Your task to perform on an android device: turn vacation reply on in the gmail app Image 0: 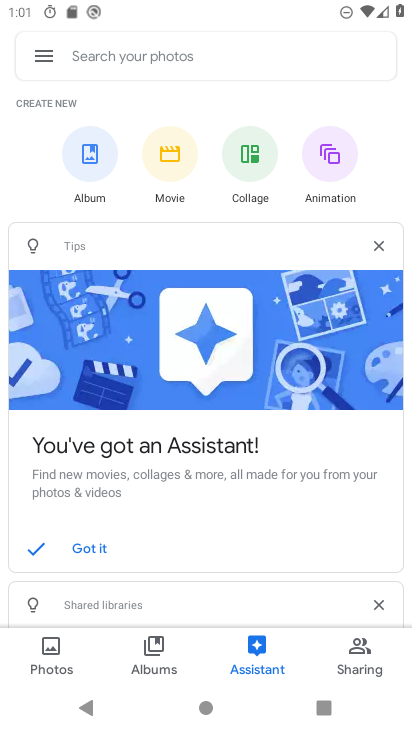
Step 0: press home button
Your task to perform on an android device: turn vacation reply on in the gmail app Image 1: 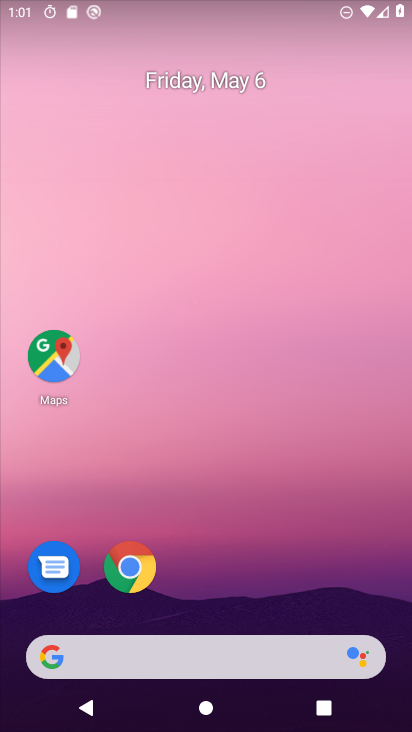
Step 1: drag from (262, 700) to (310, 288)
Your task to perform on an android device: turn vacation reply on in the gmail app Image 2: 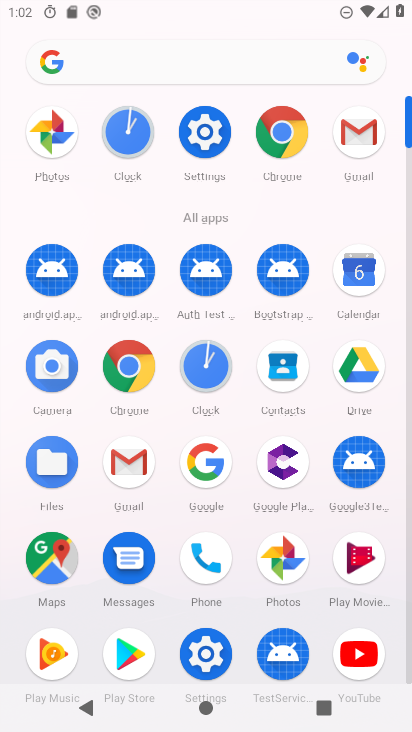
Step 2: click (352, 136)
Your task to perform on an android device: turn vacation reply on in the gmail app Image 3: 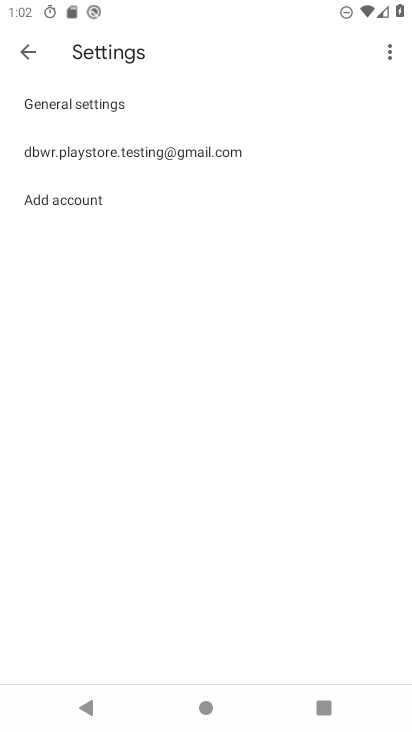
Step 3: click (127, 142)
Your task to perform on an android device: turn vacation reply on in the gmail app Image 4: 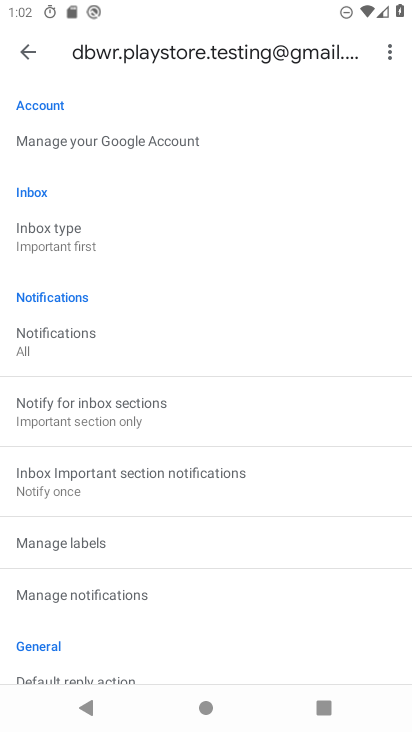
Step 4: drag from (191, 567) to (190, 357)
Your task to perform on an android device: turn vacation reply on in the gmail app Image 5: 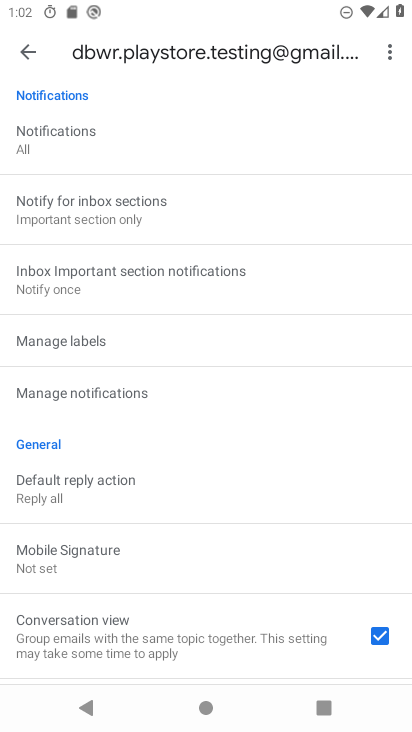
Step 5: drag from (172, 491) to (183, 414)
Your task to perform on an android device: turn vacation reply on in the gmail app Image 6: 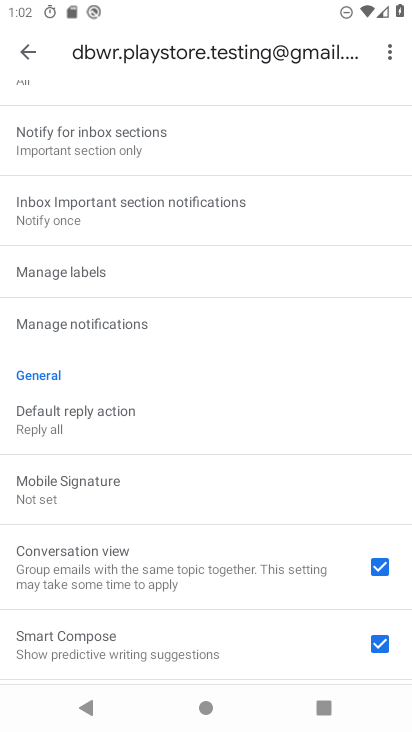
Step 6: drag from (192, 562) to (179, 356)
Your task to perform on an android device: turn vacation reply on in the gmail app Image 7: 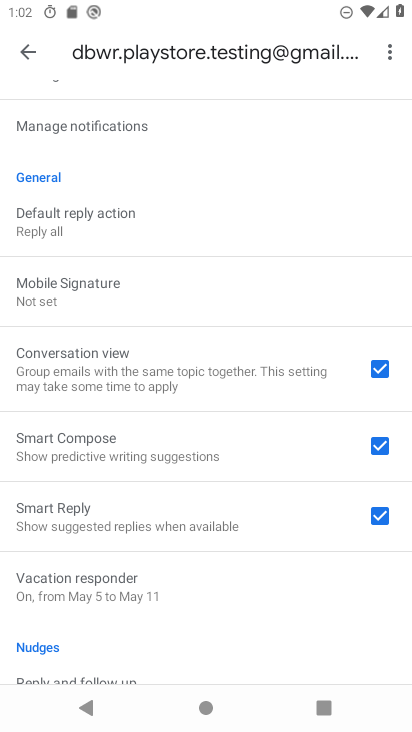
Step 7: click (163, 577)
Your task to perform on an android device: turn vacation reply on in the gmail app Image 8: 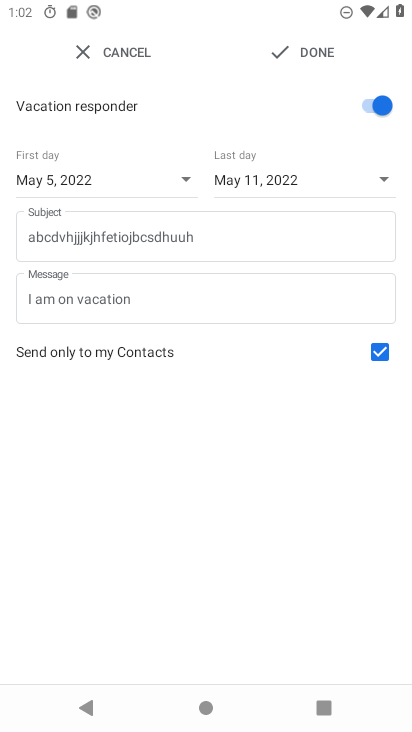
Step 8: task complete